Your task to perform on an android device: turn vacation reply on in the gmail app Image 0: 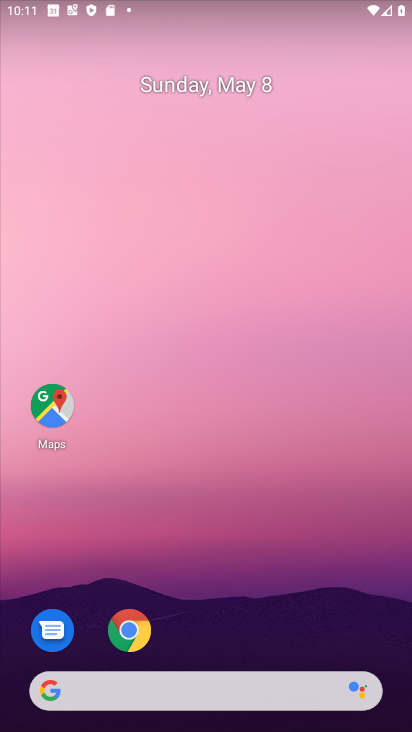
Step 0: drag from (203, 729) to (231, 75)
Your task to perform on an android device: turn vacation reply on in the gmail app Image 1: 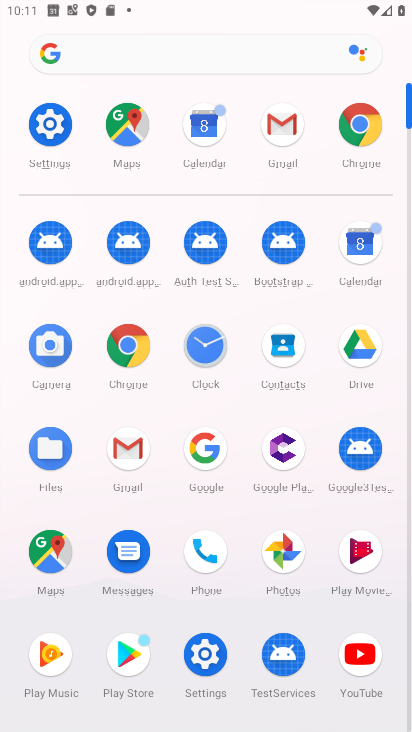
Step 1: click (128, 447)
Your task to perform on an android device: turn vacation reply on in the gmail app Image 2: 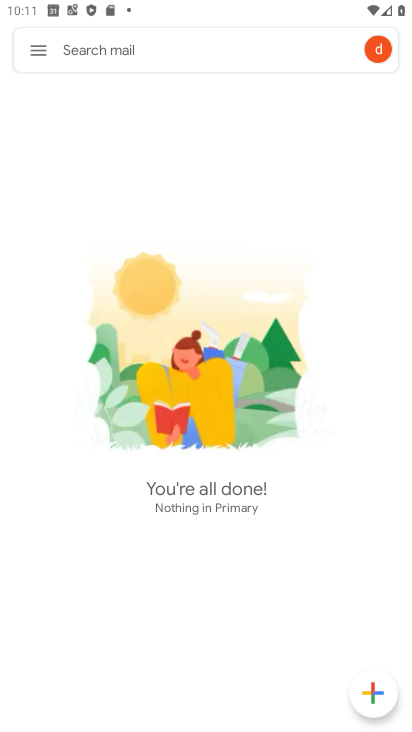
Step 2: click (34, 54)
Your task to perform on an android device: turn vacation reply on in the gmail app Image 3: 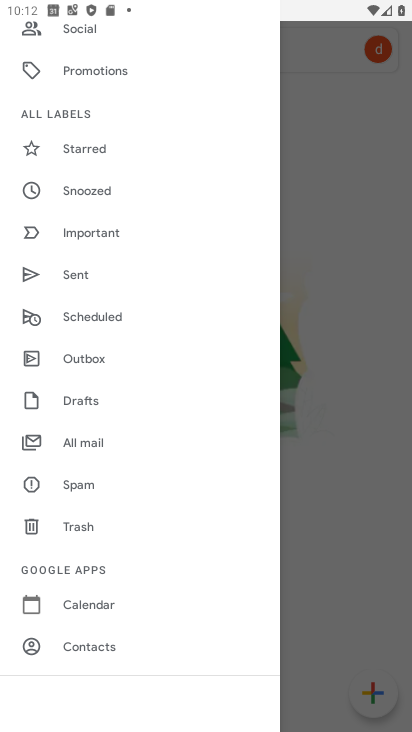
Step 3: drag from (110, 568) to (94, 235)
Your task to perform on an android device: turn vacation reply on in the gmail app Image 4: 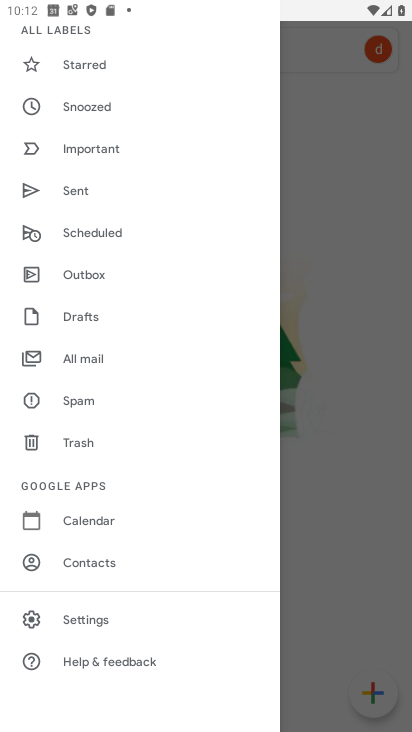
Step 4: click (93, 616)
Your task to perform on an android device: turn vacation reply on in the gmail app Image 5: 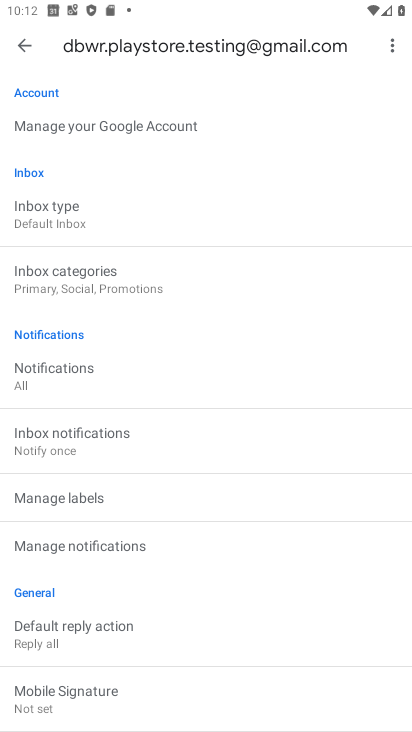
Step 5: drag from (103, 656) to (102, 506)
Your task to perform on an android device: turn vacation reply on in the gmail app Image 6: 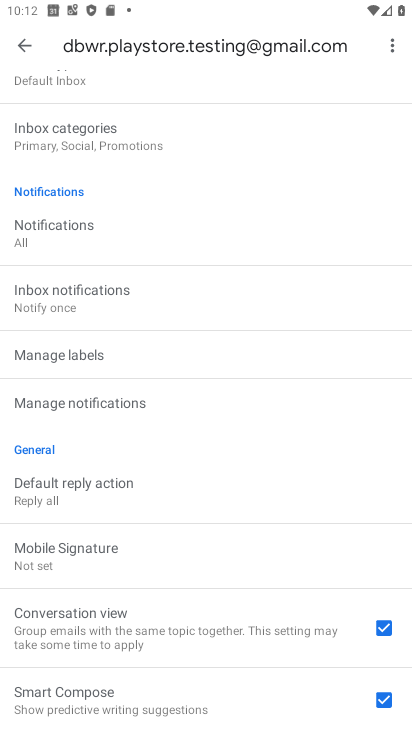
Step 6: drag from (139, 586) to (147, 249)
Your task to perform on an android device: turn vacation reply on in the gmail app Image 7: 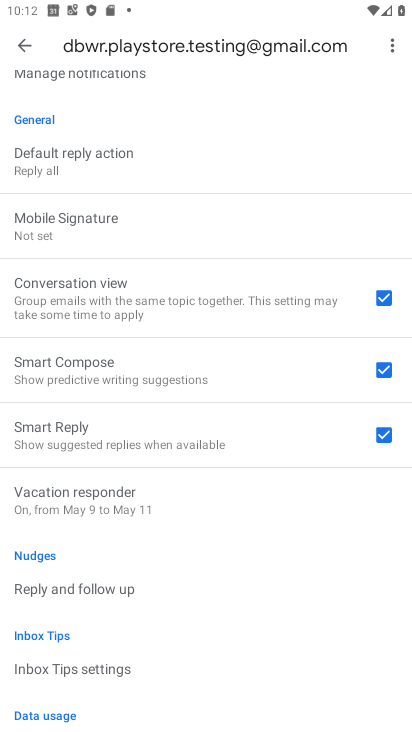
Step 7: click (88, 497)
Your task to perform on an android device: turn vacation reply on in the gmail app Image 8: 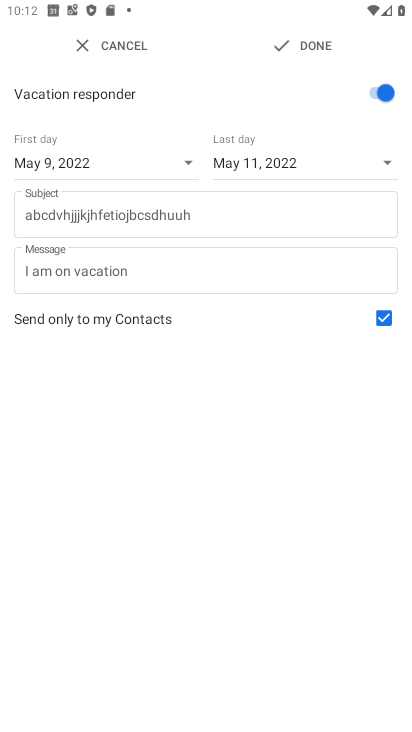
Step 8: task complete